Your task to perform on an android device: Open settings Image 0: 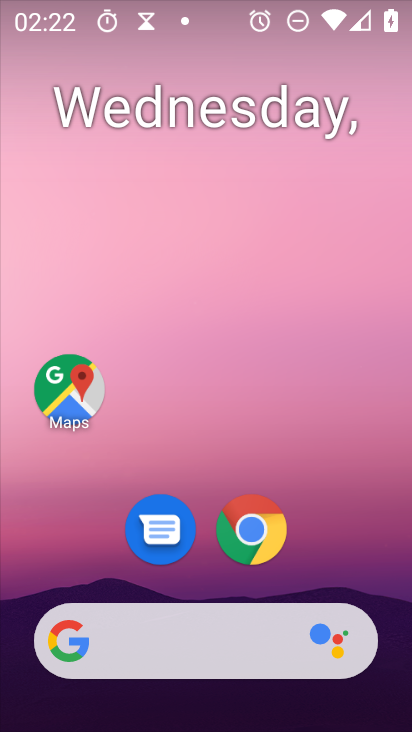
Step 0: drag from (319, 575) to (287, 46)
Your task to perform on an android device: Open settings Image 1: 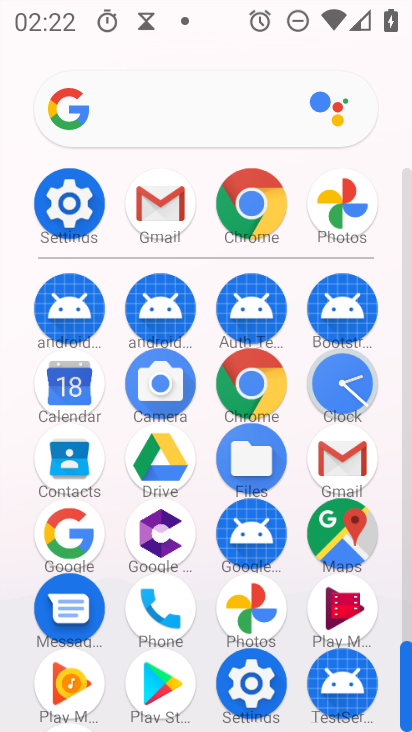
Step 1: click (226, 670)
Your task to perform on an android device: Open settings Image 2: 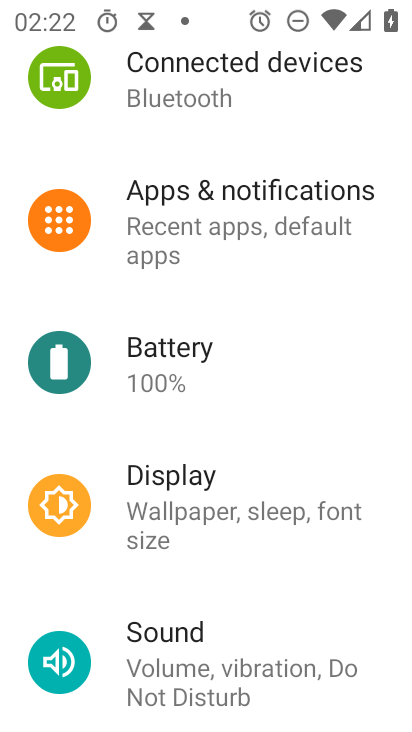
Step 2: task complete